Your task to perform on an android device: open app "Nova Launcher" (install if not already installed) and go to login screen Image 0: 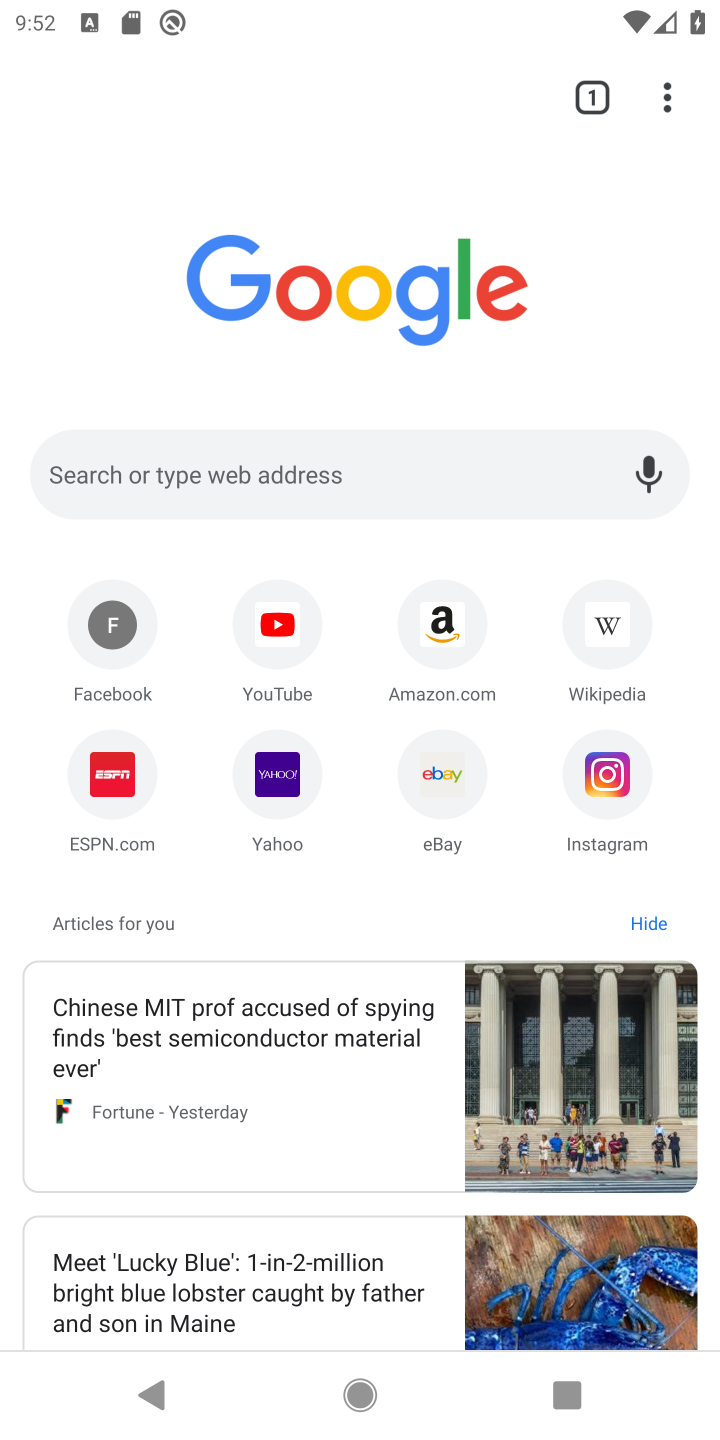
Step 0: press home button
Your task to perform on an android device: open app "Nova Launcher" (install if not already installed) and go to login screen Image 1: 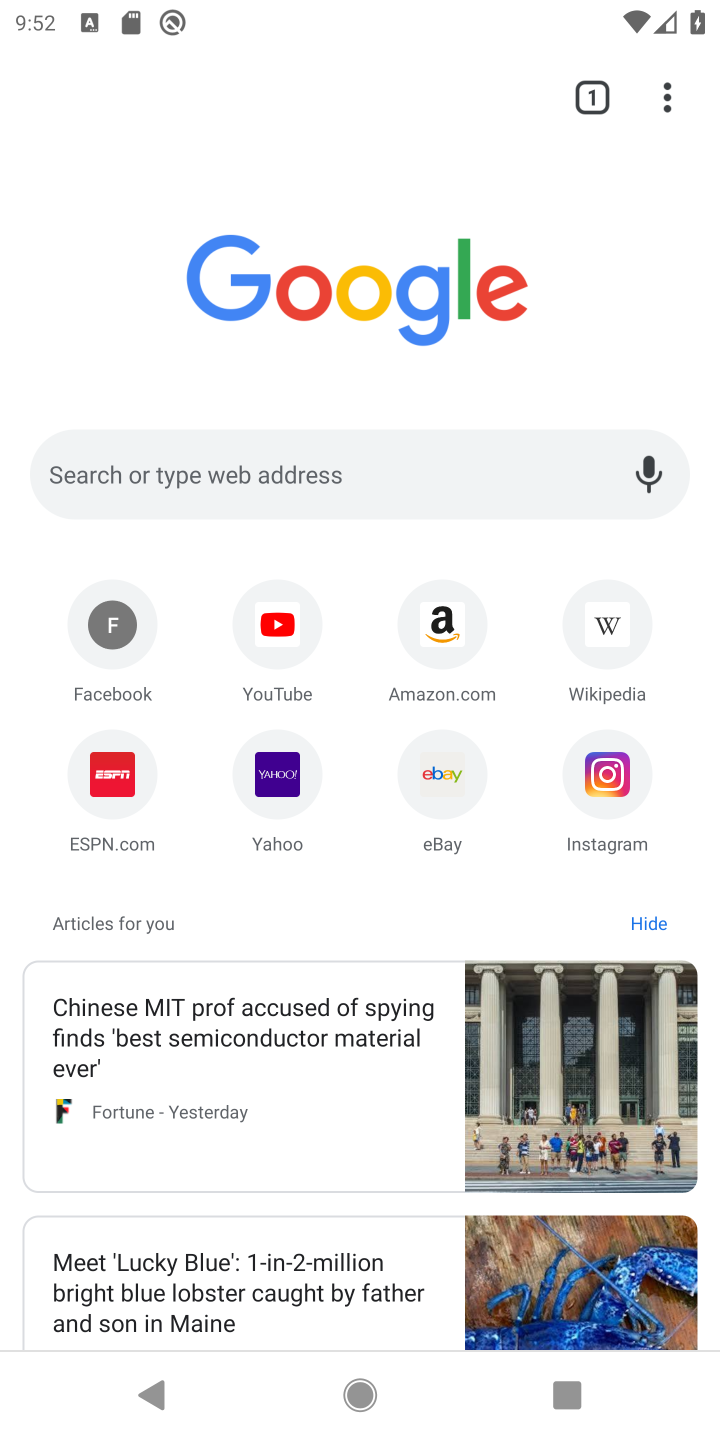
Step 1: press home button
Your task to perform on an android device: open app "Nova Launcher" (install if not already installed) and go to login screen Image 2: 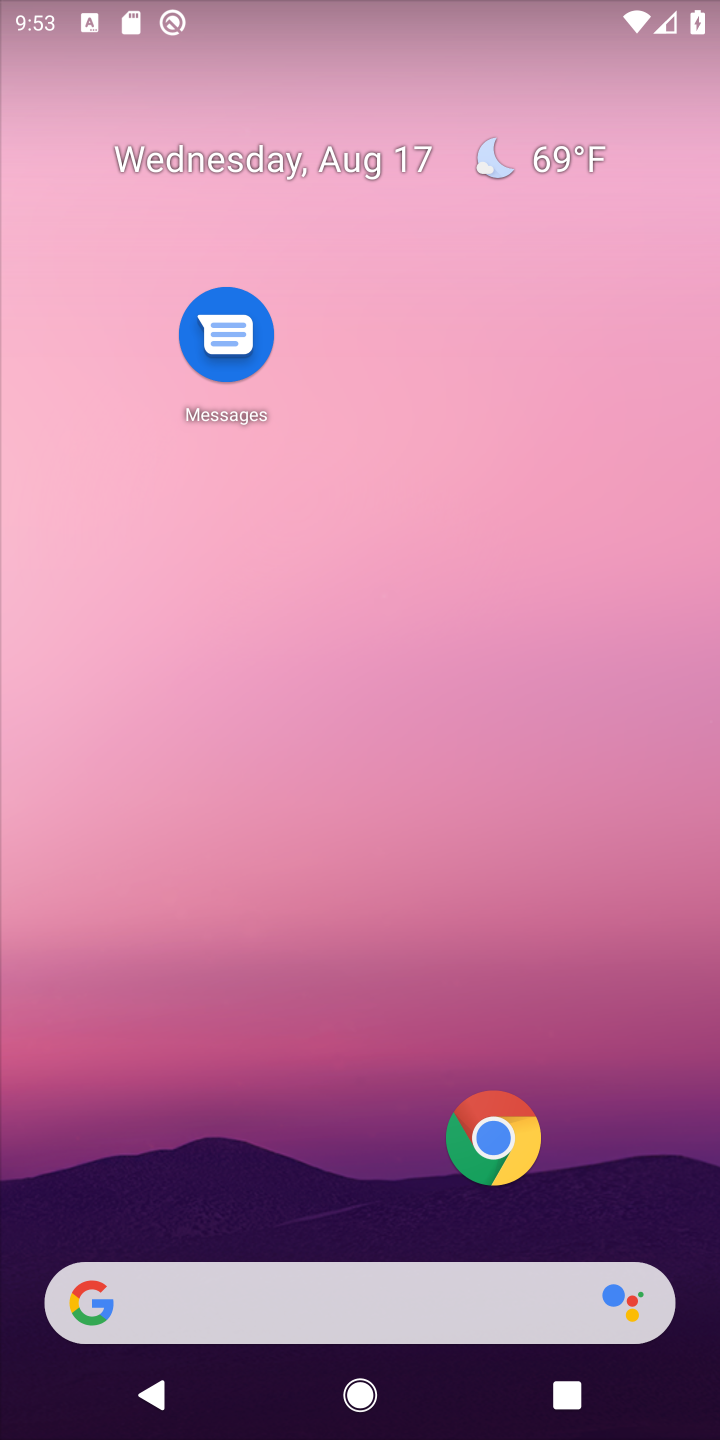
Step 2: drag from (289, 911) to (362, 333)
Your task to perform on an android device: open app "Nova Launcher" (install if not already installed) and go to login screen Image 3: 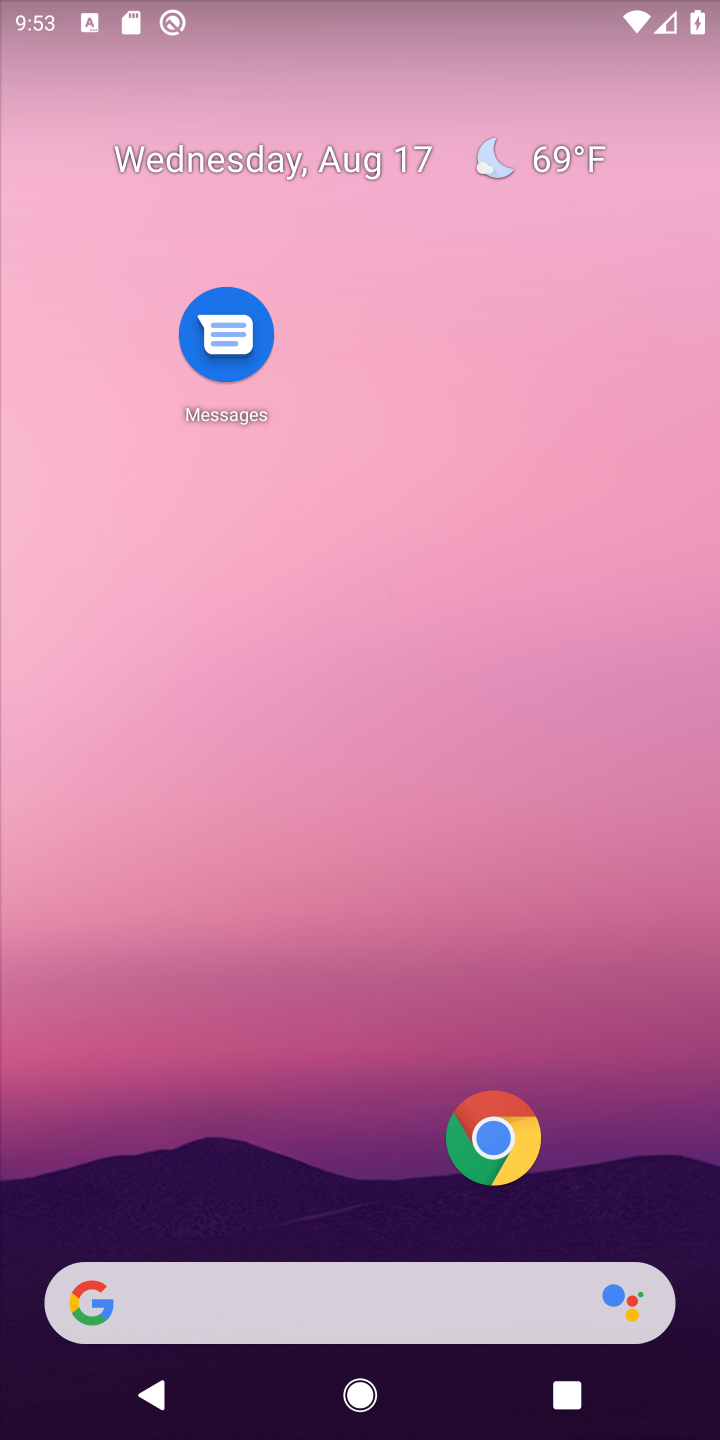
Step 3: drag from (404, 941) to (404, 511)
Your task to perform on an android device: open app "Nova Launcher" (install if not already installed) and go to login screen Image 4: 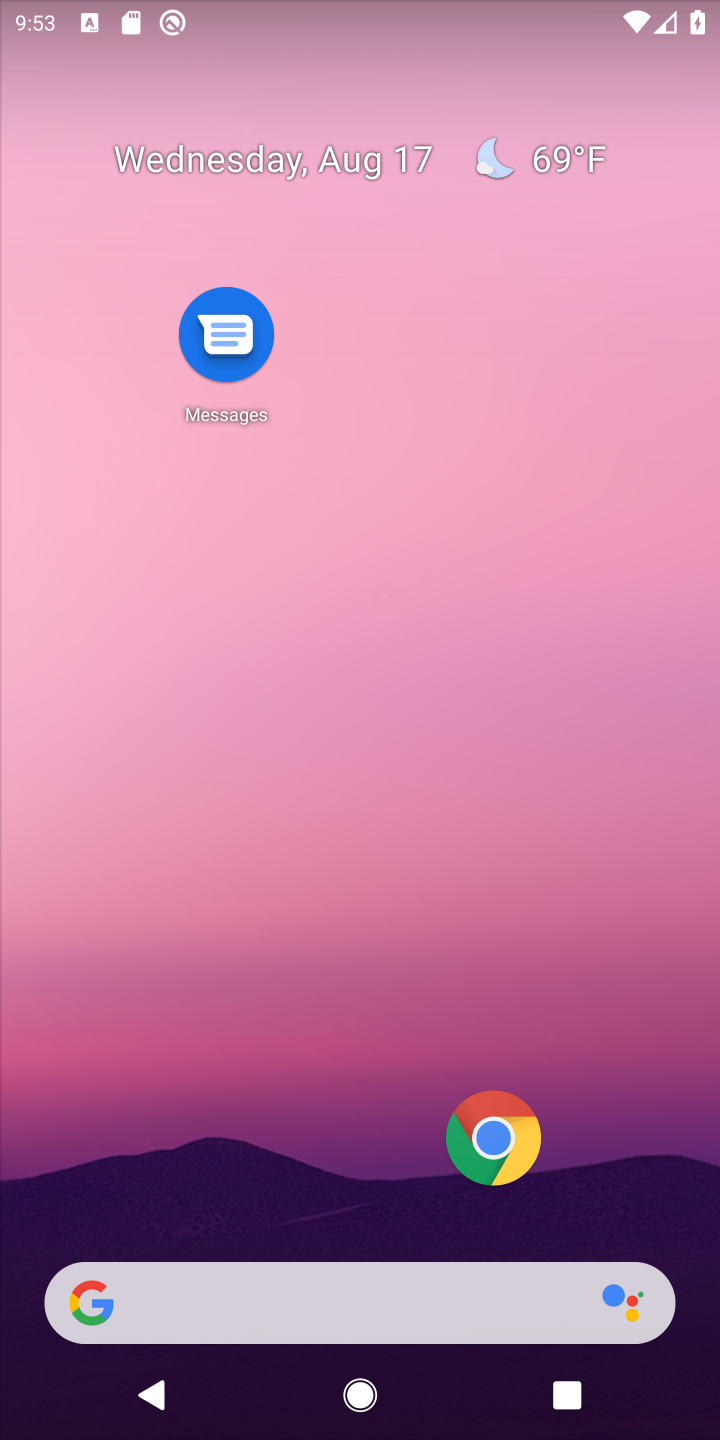
Step 4: drag from (238, 989) to (397, 138)
Your task to perform on an android device: open app "Nova Launcher" (install if not already installed) and go to login screen Image 5: 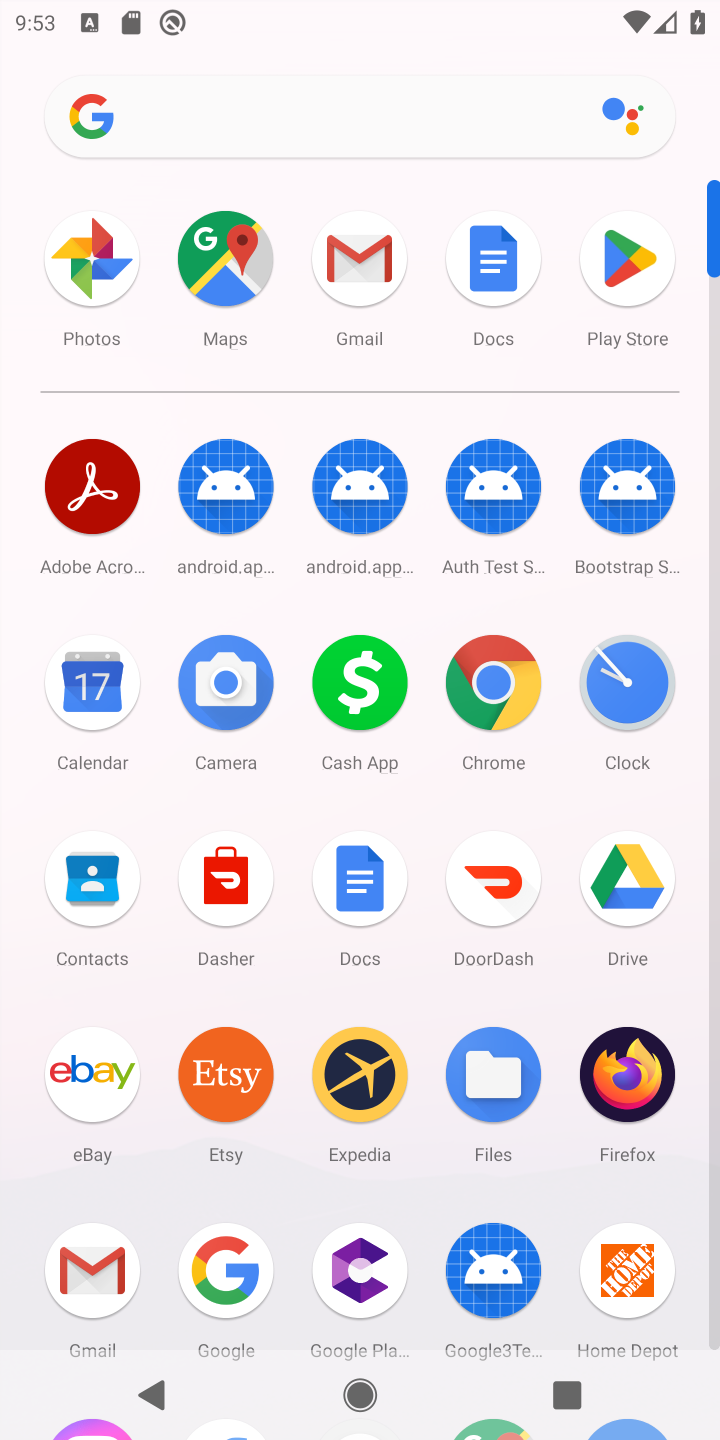
Step 5: click (602, 266)
Your task to perform on an android device: open app "Nova Launcher" (install if not already installed) and go to login screen Image 6: 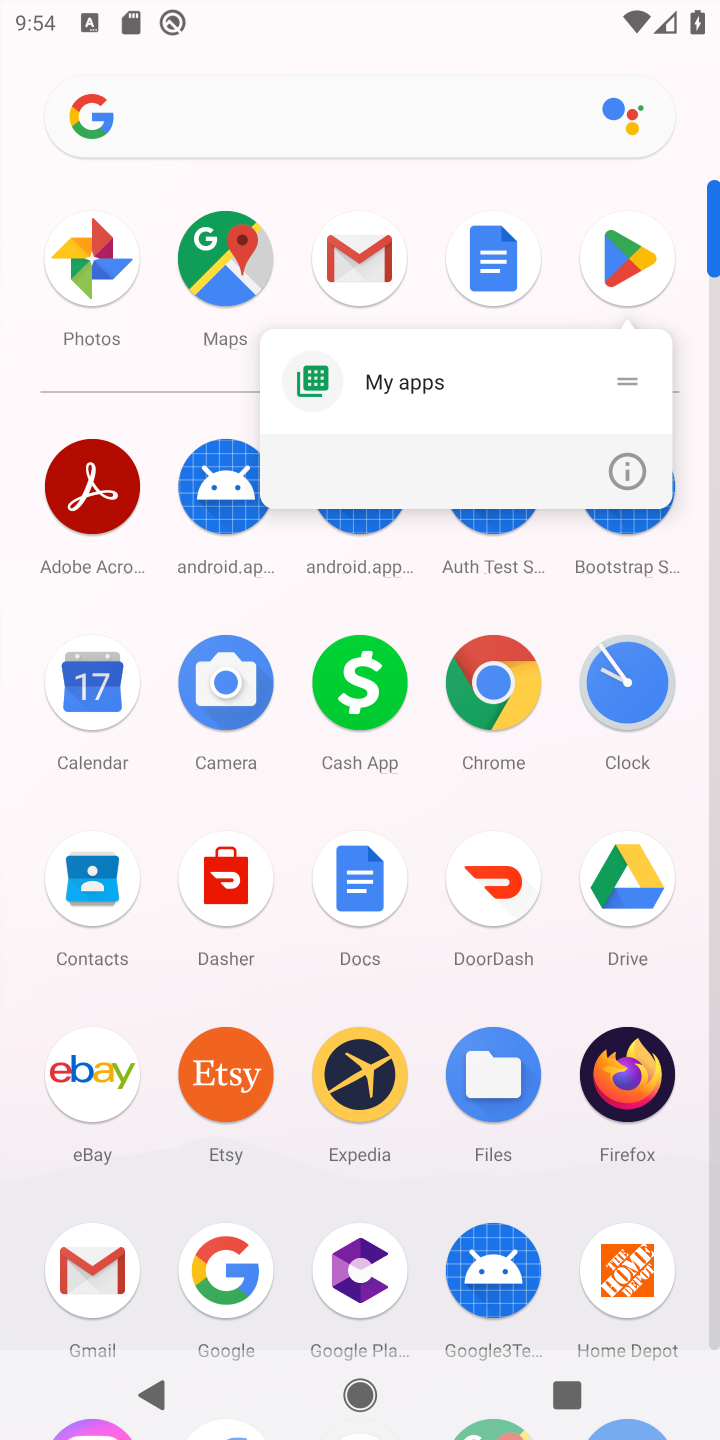
Step 6: click (628, 282)
Your task to perform on an android device: open app "Nova Launcher" (install if not already installed) and go to login screen Image 7: 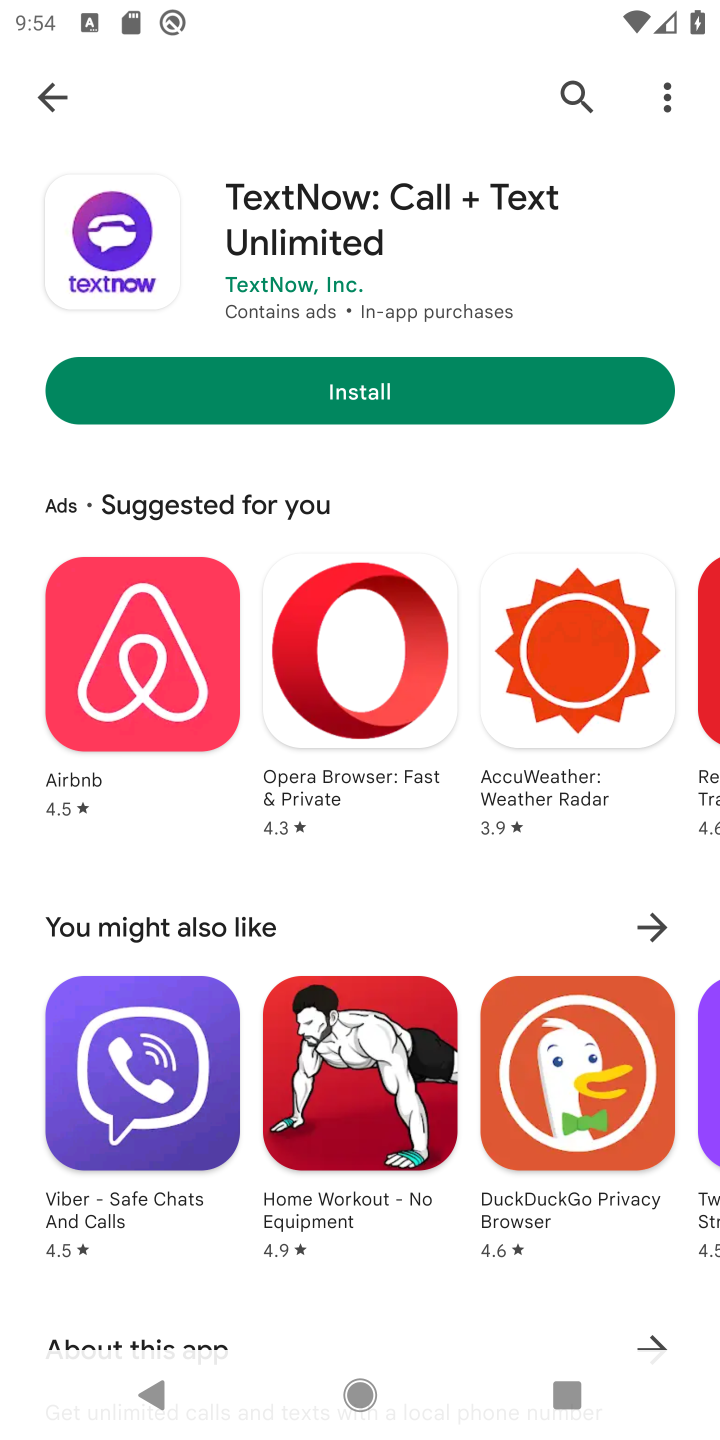
Step 7: click (63, 107)
Your task to perform on an android device: open app "Nova Launcher" (install if not already installed) and go to login screen Image 8: 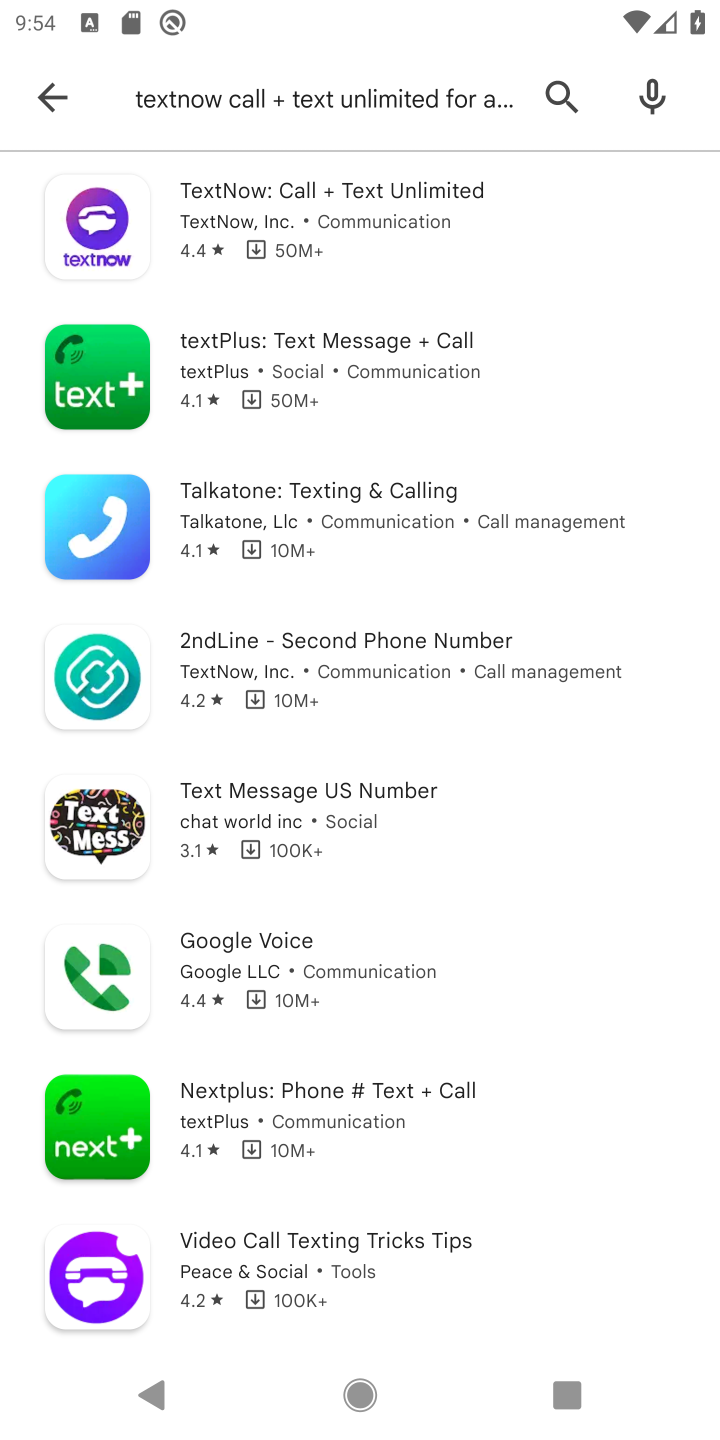
Step 8: click (63, 107)
Your task to perform on an android device: open app "Nova Launcher" (install if not already installed) and go to login screen Image 9: 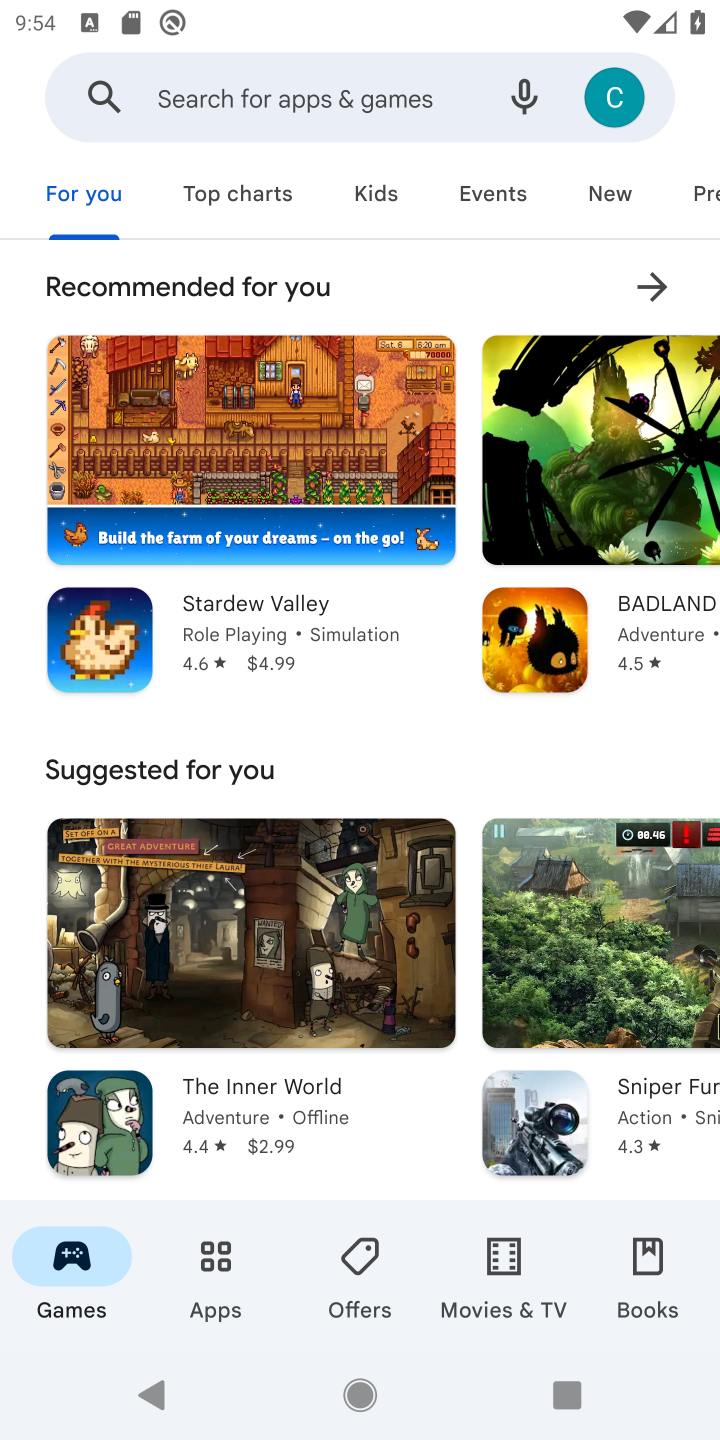
Step 9: click (362, 84)
Your task to perform on an android device: open app "Nova Launcher" (install if not already installed) and go to login screen Image 10: 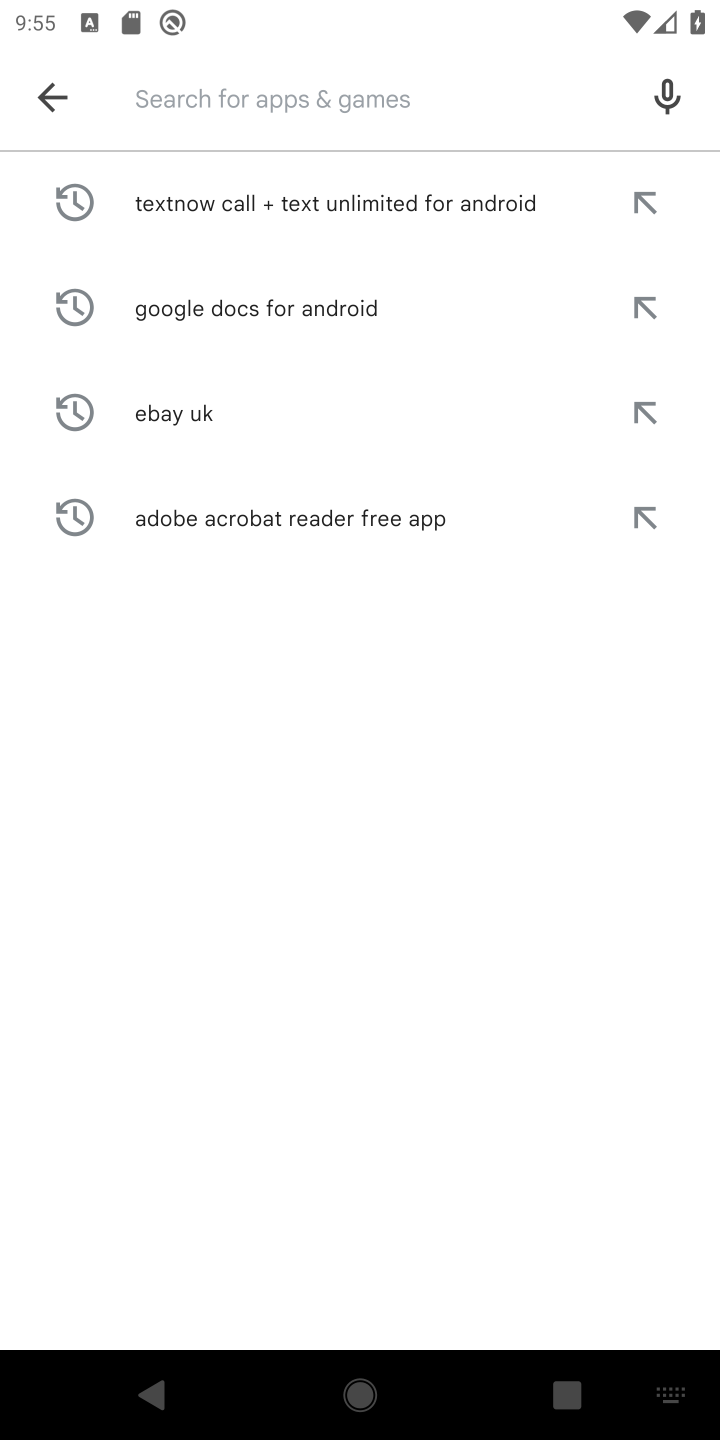
Step 10: type "Nova Launcher "
Your task to perform on an android device: open app "Nova Launcher" (install if not already installed) and go to login screen Image 11: 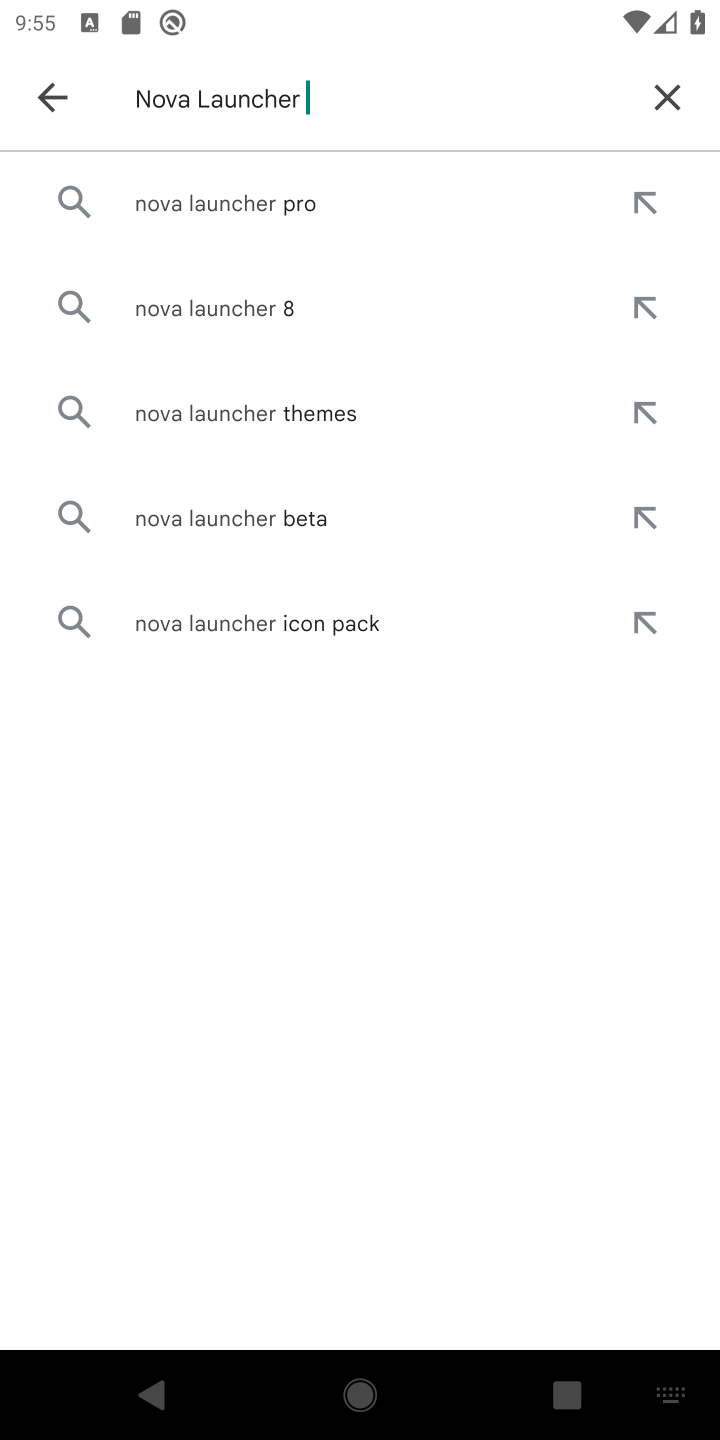
Step 11: click (277, 182)
Your task to perform on an android device: open app "Nova Launcher" (install if not already installed) and go to login screen Image 12: 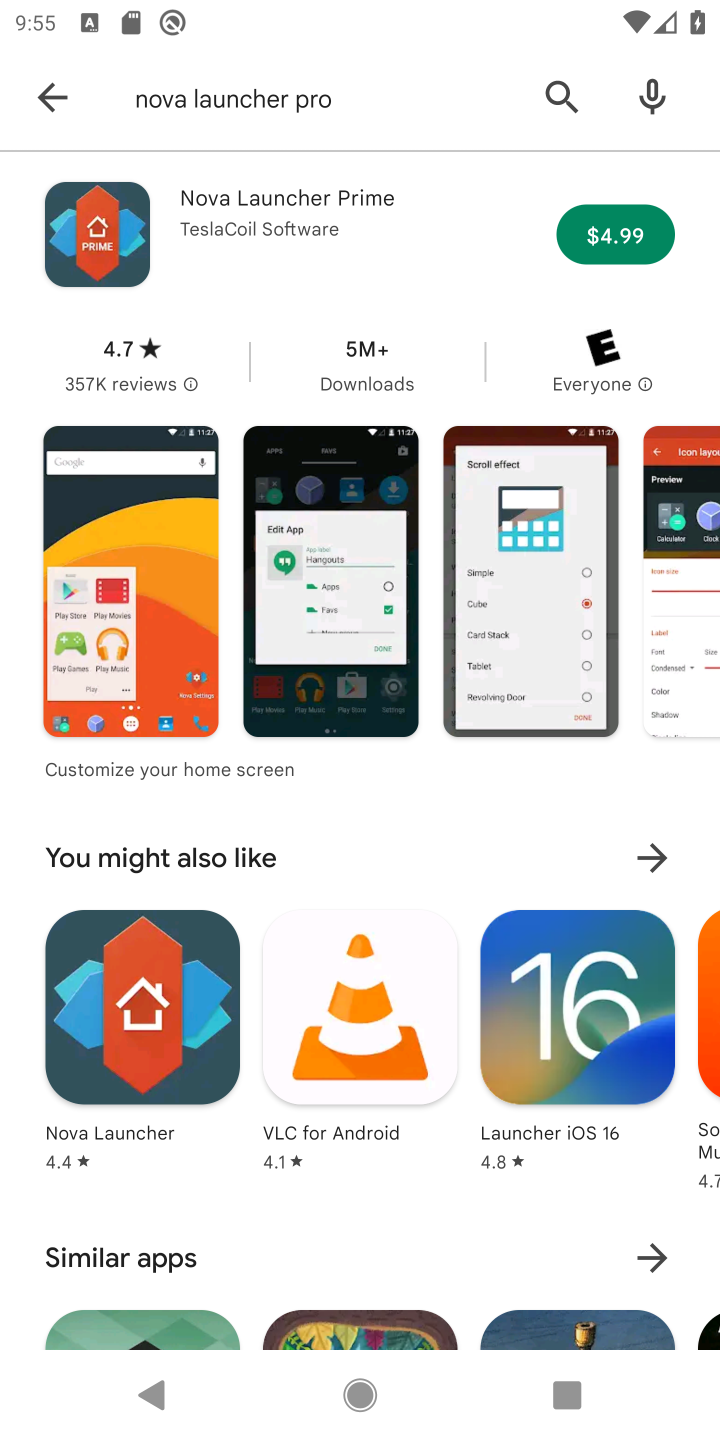
Step 12: task complete